Your task to perform on an android device: turn off notifications in google photos Image 0: 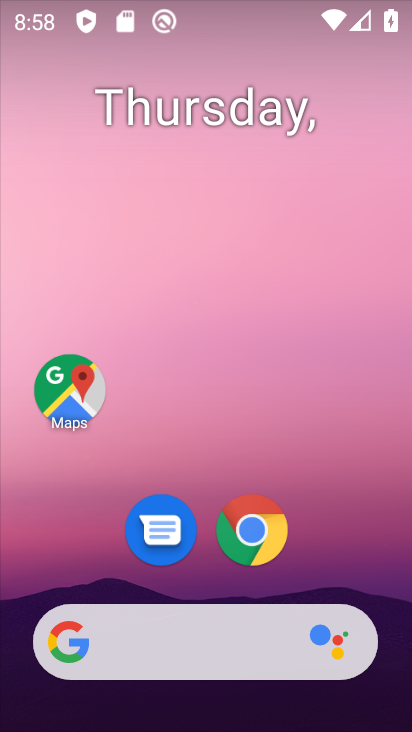
Step 0: drag from (342, 420) to (288, 23)
Your task to perform on an android device: turn off notifications in google photos Image 1: 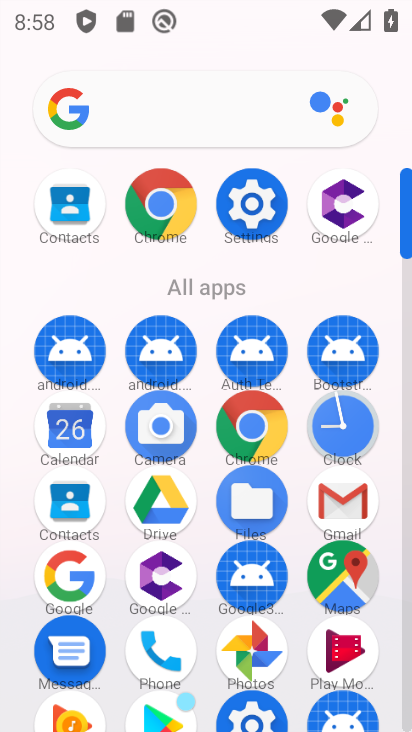
Step 1: drag from (11, 505) to (31, 271)
Your task to perform on an android device: turn off notifications in google photos Image 2: 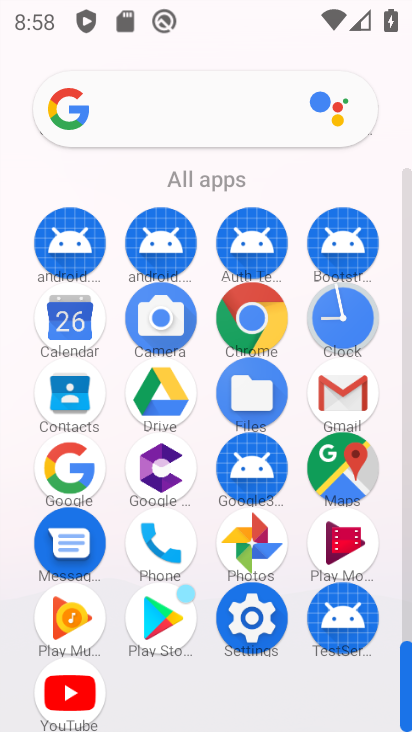
Step 2: click (252, 540)
Your task to perform on an android device: turn off notifications in google photos Image 3: 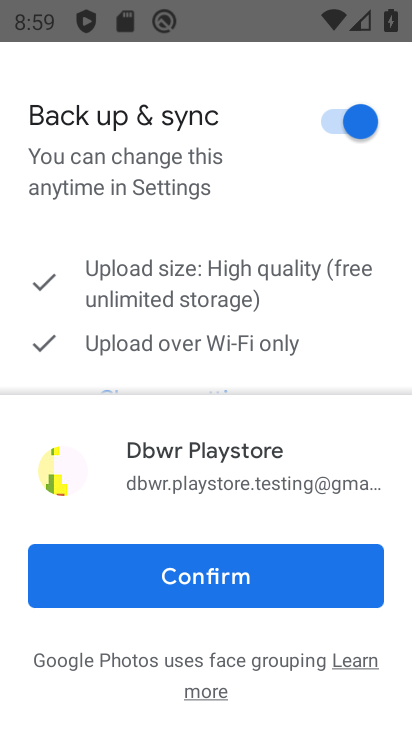
Step 3: click (217, 569)
Your task to perform on an android device: turn off notifications in google photos Image 4: 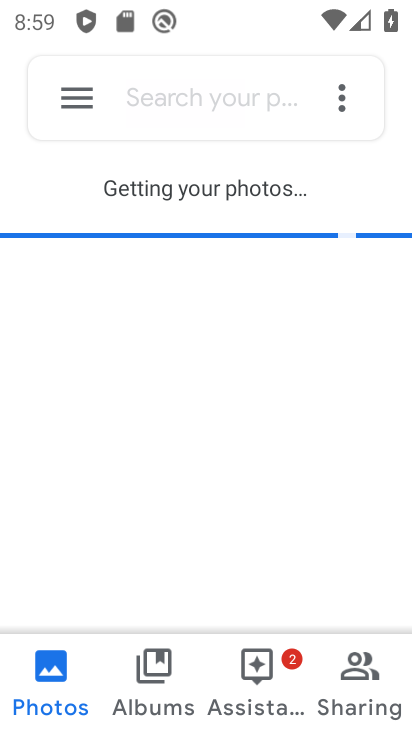
Step 4: click (74, 94)
Your task to perform on an android device: turn off notifications in google photos Image 5: 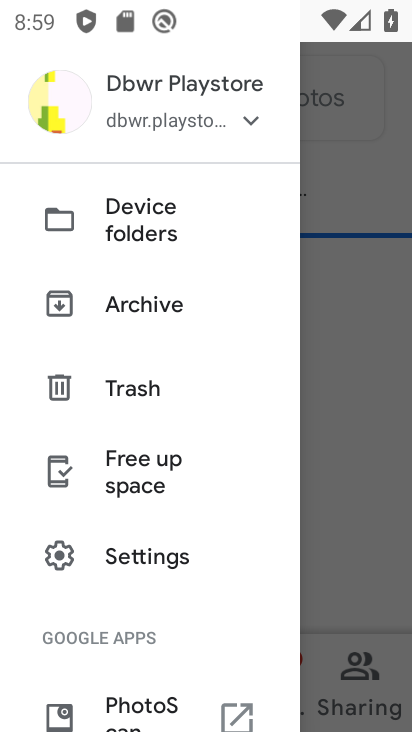
Step 5: click (141, 550)
Your task to perform on an android device: turn off notifications in google photos Image 6: 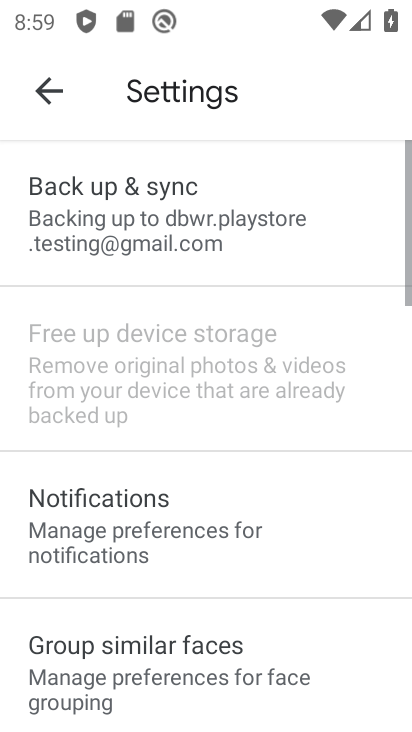
Step 6: click (169, 511)
Your task to perform on an android device: turn off notifications in google photos Image 7: 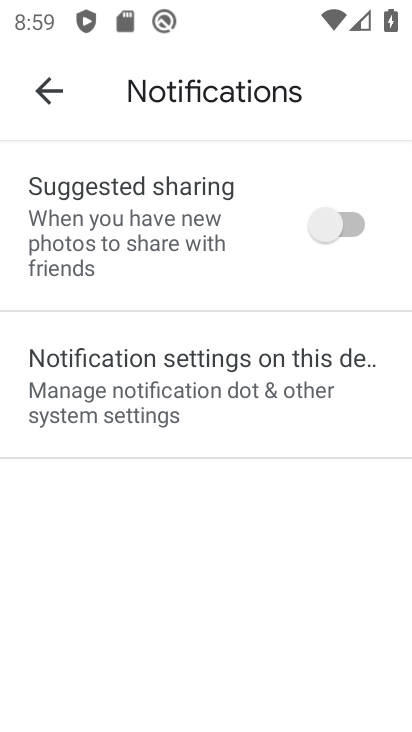
Step 7: click (297, 410)
Your task to perform on an android device: turn off notifications in google photos Image 8: 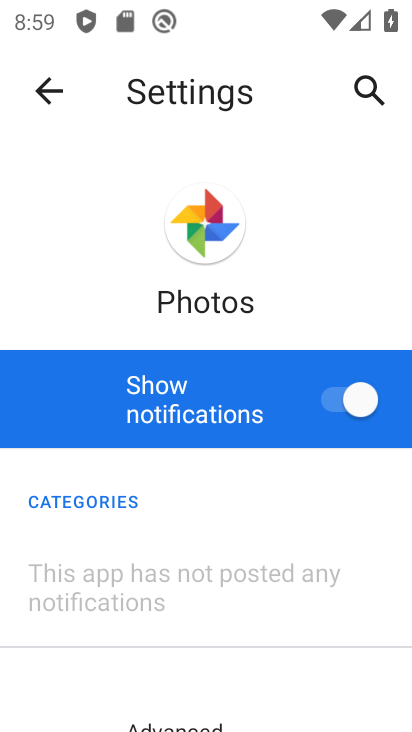
Step 8: click (352, 405)
Your task to perform on an android device: turn off notifications in google photos Image 9: 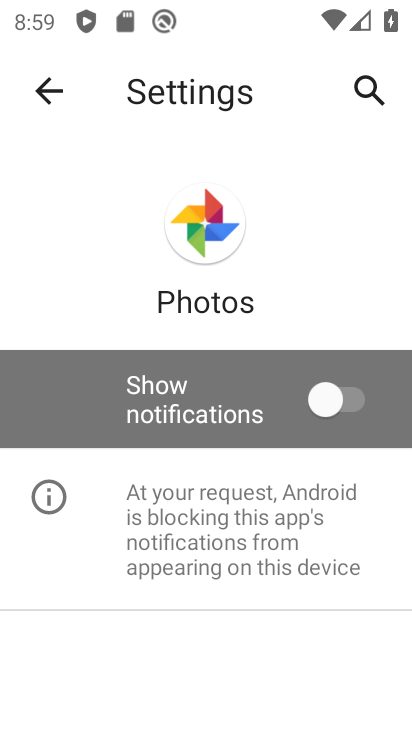
Step 9: task complete